Your task to perform on an android device: add a contact in the contacts app Image 0: 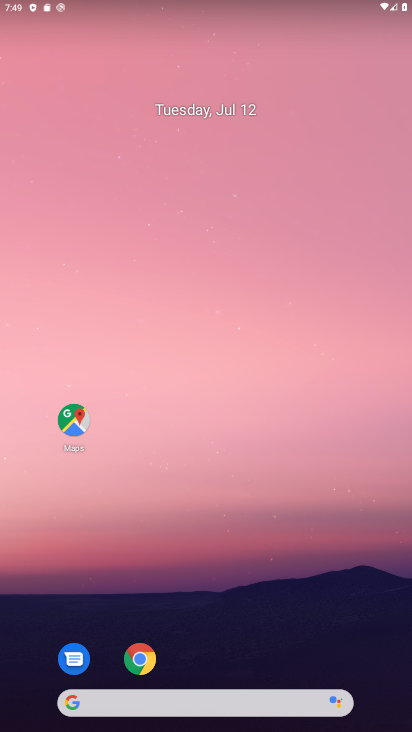
Step 0: drag from (229, 472) to (228, 95)
Your task to perform on an android device: add a contact in the contacts app Image 1: 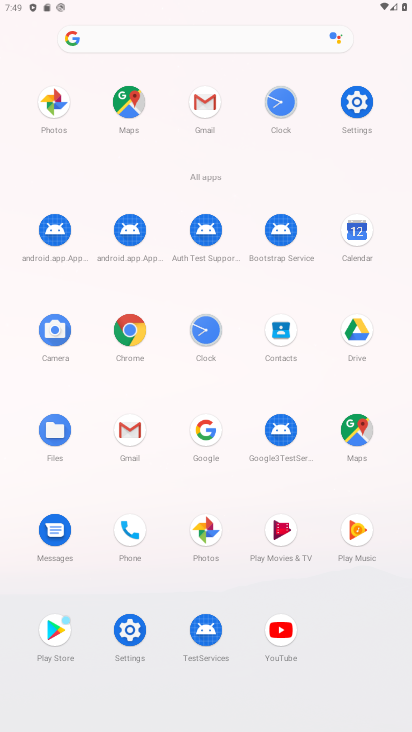
Step 1: click (276, 332)
Your task to perform on an android device: add a contact in the contacts app Image 2: 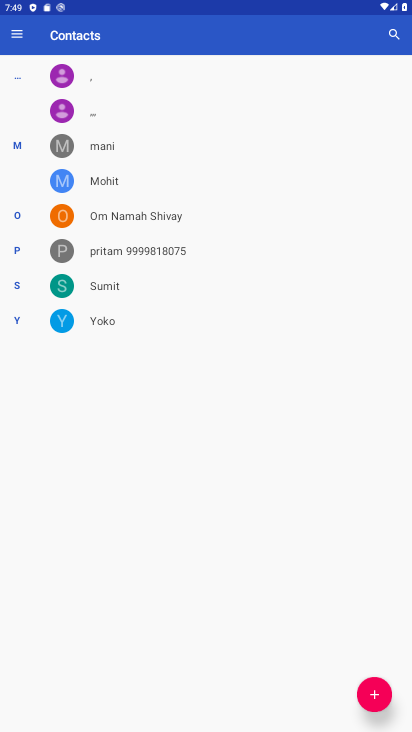
Step 2: click (377, 693)
Your task to perform on an android device: add a contact in the contacts app Image 3: 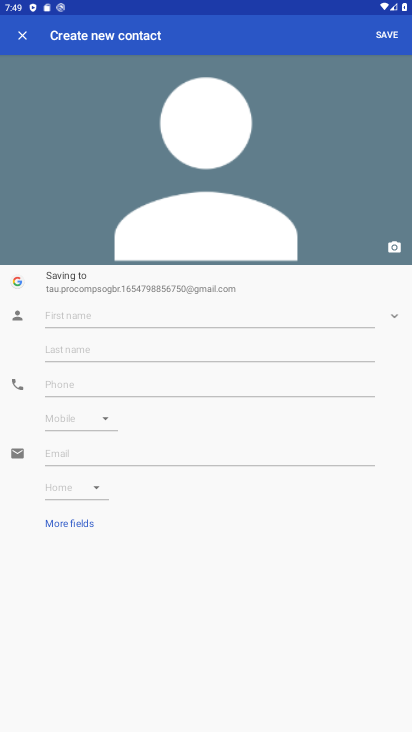
Step 3: click (124, 309)
Your task to perform on an android device: add a contact in the contacts app Image 4: 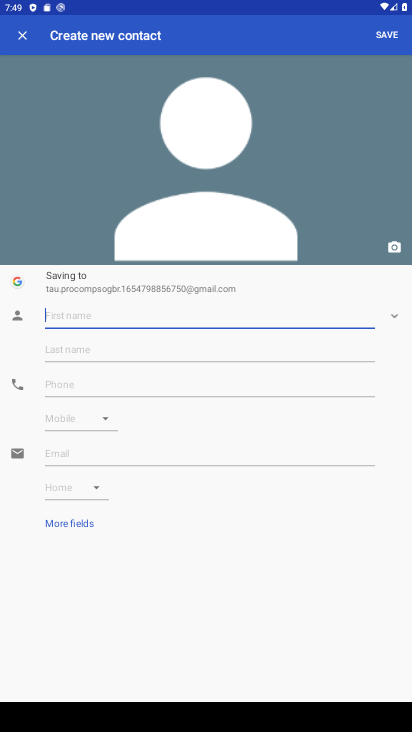
Step 4: type "Ranu"
Your task to perform on an android device: add a contact in the contacts app Image 5: 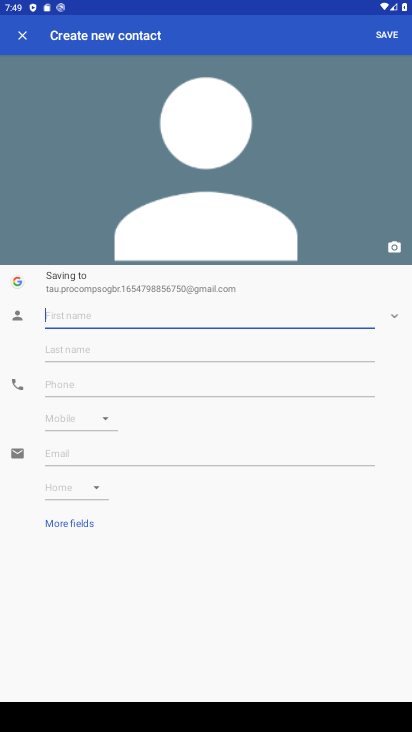
Step 5: click (203, 383)
Your task to perform on an android device: add a contact in the contacts app Image 6: 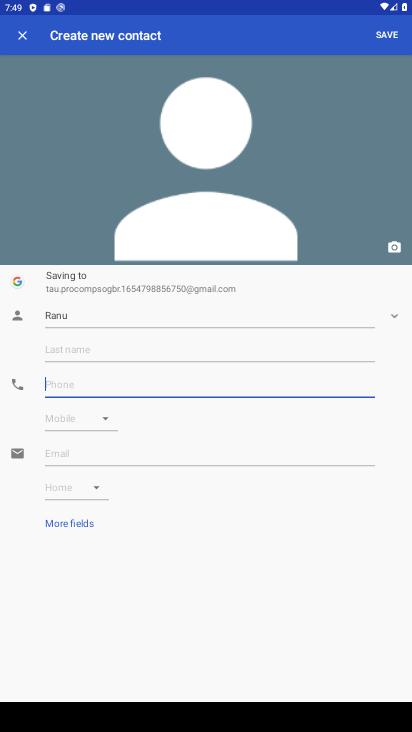
Step 6: type "7576757688"
Your task to perform on an android device: add a contact in the contacts app Image 7: 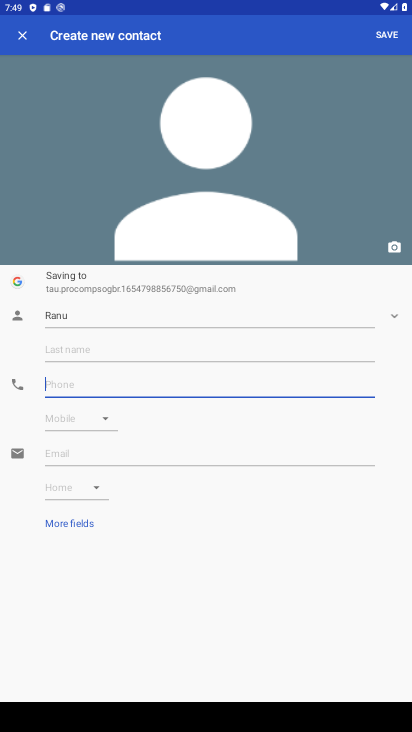
Step 7: click (350, 551)
Your task to perform on an android device: add a contact in the contacts app Image 8: 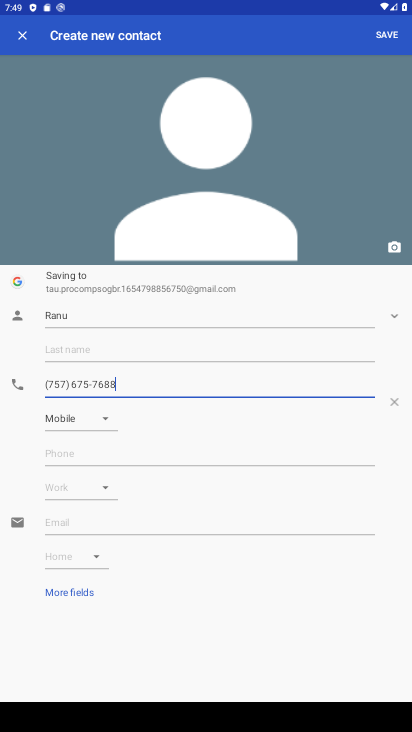
Step 8: click (382, 34)
Your task to perform on an android device: add a contact in the contacts app Image 9: 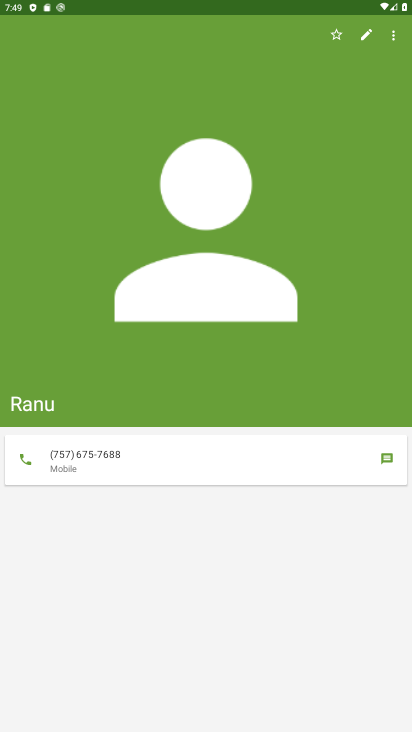
Step 9: task complete